Your task to perform on an android device: Do I have any events tomorrow? Image 0: 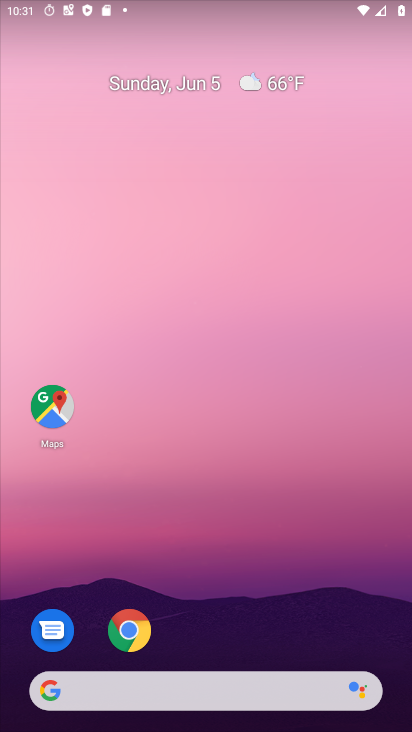
Step 0: drag from (187, 727) to (244, 14)
Your task to perform on an android device: Do I have any events tomorrow? Image 1: 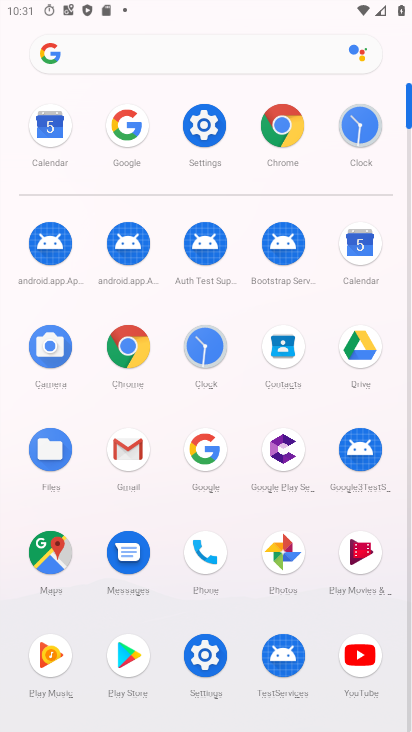
Step 1: click (358, 245)
Your task to perform on an android device: Do I have any events tomorrow? Image 2: 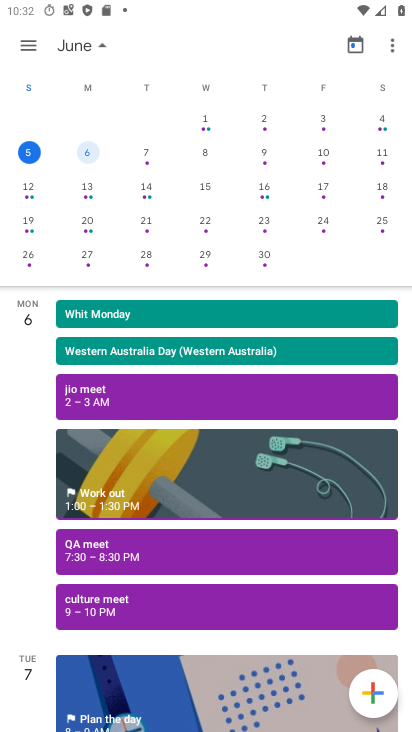
Step 2: click (86, 150)
Your task to perform on an android device: Do I have any events tomorrow? Image 3: 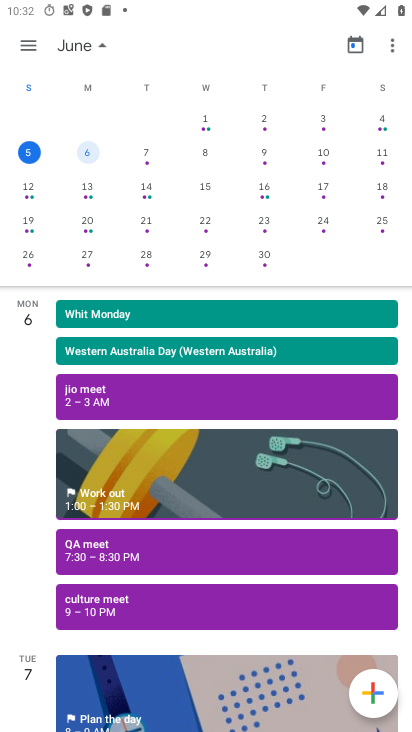
Step 3: task complete